Your task to perform on an android device: Open settings on Google Maps Image 0: 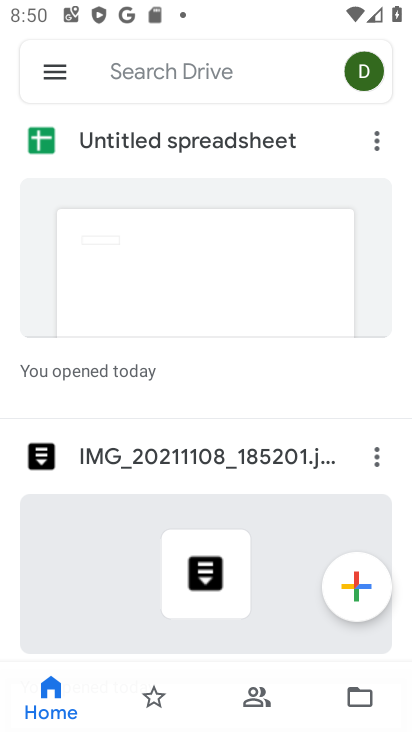
Step 0: press home button
Your task to perform on an android device: Open settings on Google Maps Image 1: 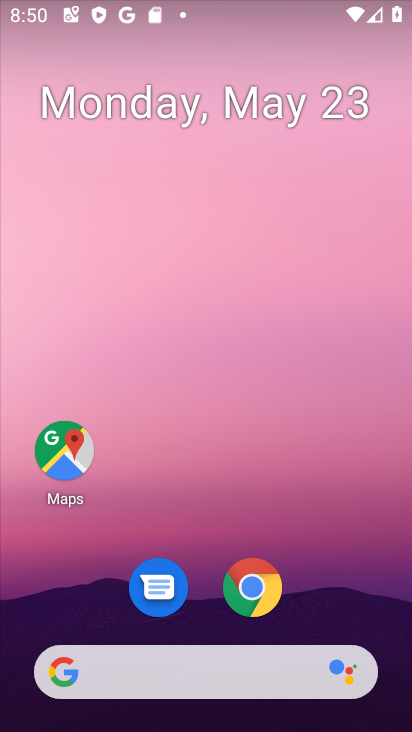
Step 1: click (54, 450)
Your task to perform on an android device: Open settings on Google Maps Image 2: 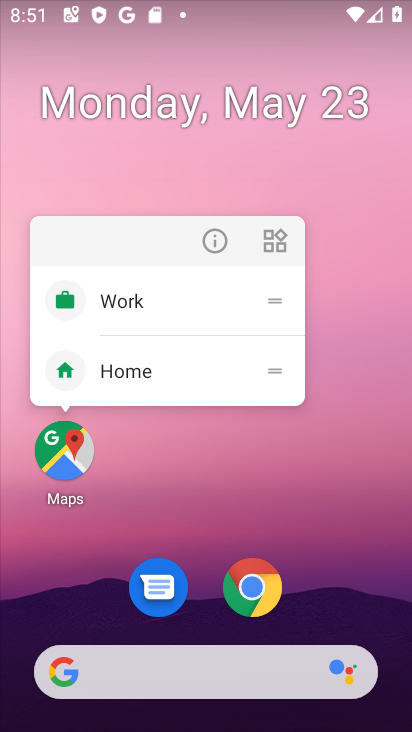
Step 2: click (53, 425)
Your task to perform on an android device: Open settings on Google Maps Image 3: 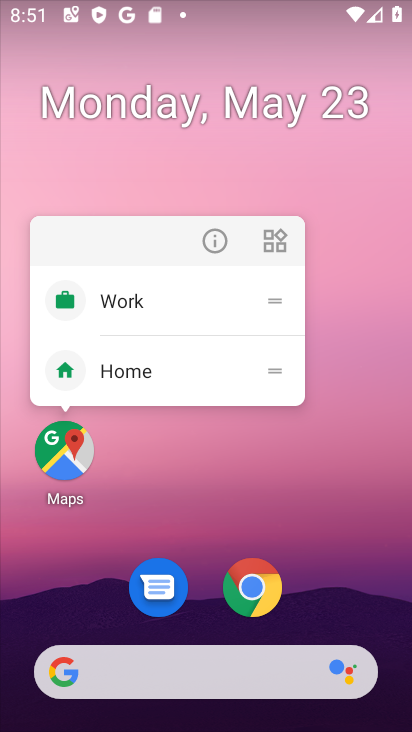
Step 3: click (63, 448)
Your task to perform on an android device: Open settings on Google Maps Image 4: 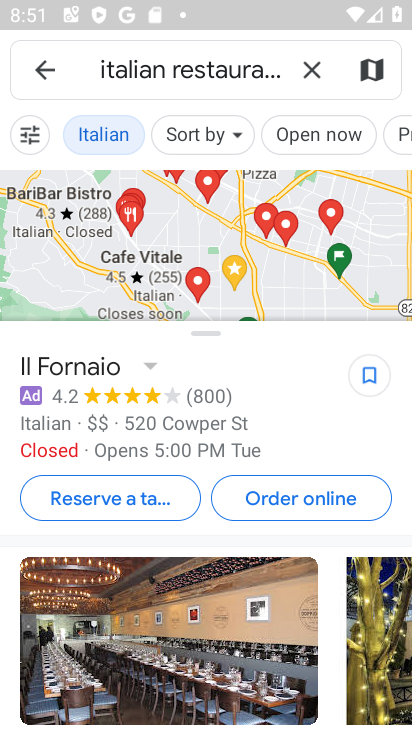
Step 4: click (47, 60)
Your task to perform on an android device: Open settings on Google Maps Image 5: 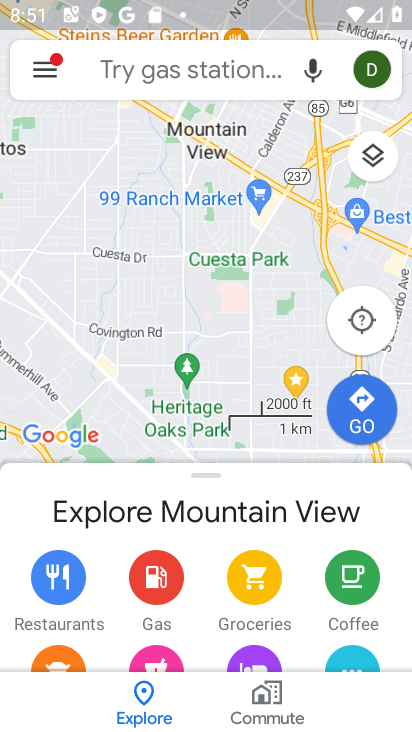
Step 5: click (45, 61)
Your task to perform on an android device: Open settings on Google Maps Image 6: 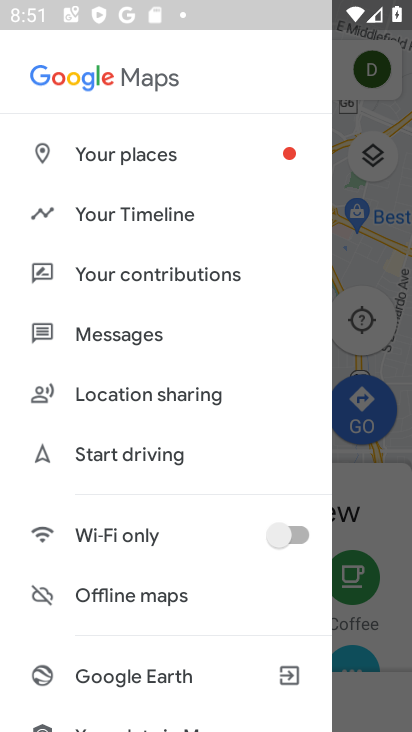
Step 6: drag from (113, 662) to (232, 161)
Your task to perform on an android device: Open settings on Google Maps Image 7: 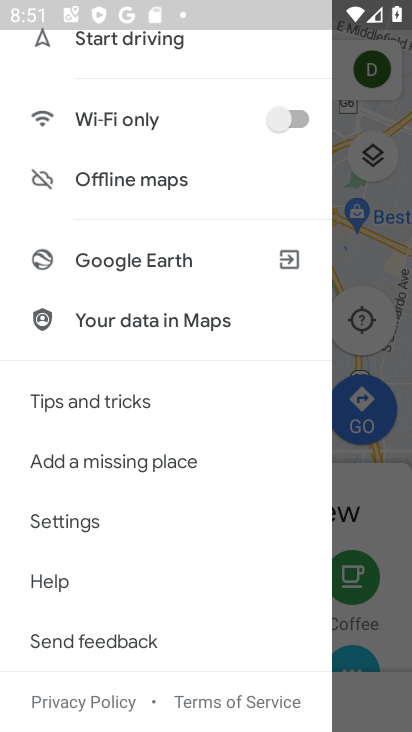
Step 7: click (90, 516)
Your task to perform on an android device: Open settings on Google Maps Image 8: 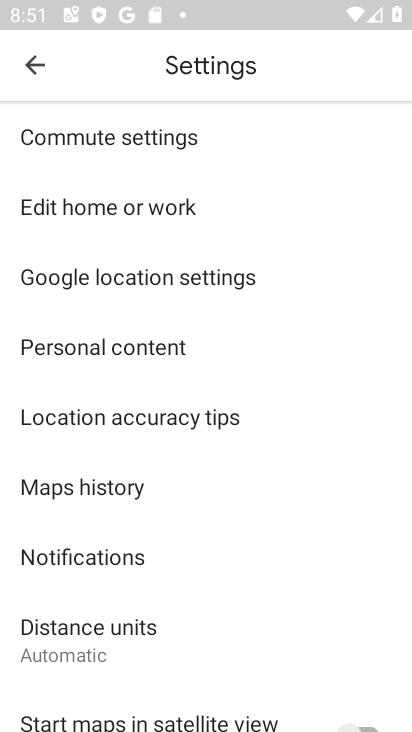
Step 8: task complete